Your task to perform on an android device: Open display settings Image 0: 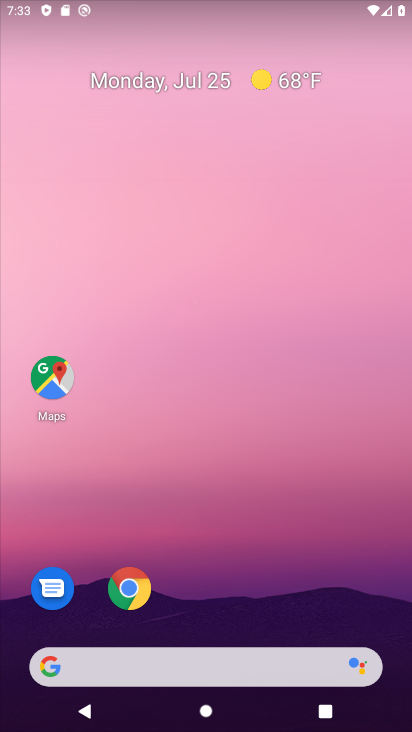
Step 0: press home button
Your task to perform on an android device: Open display settings Image 1: 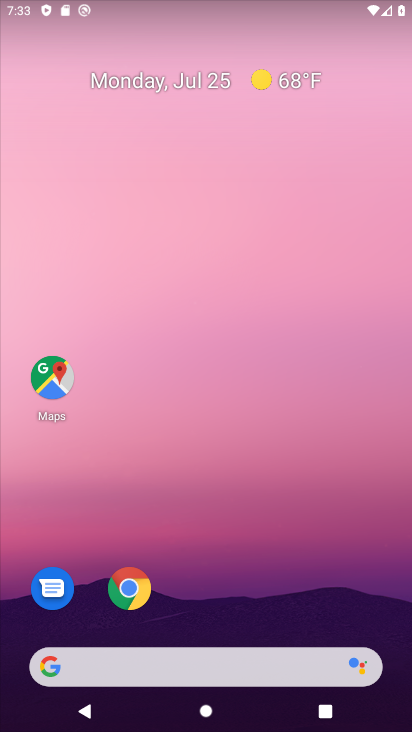
Step 1: drag from (338, 566) to (345, 73)
Your task to perform on an android device: Open display settings Image 2: 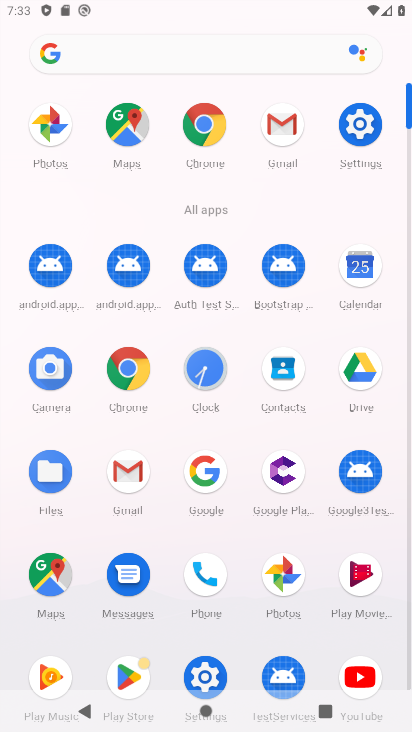
Step 2: click (360, 135)
Your task to perform on an android device: Open display settings Image 3: 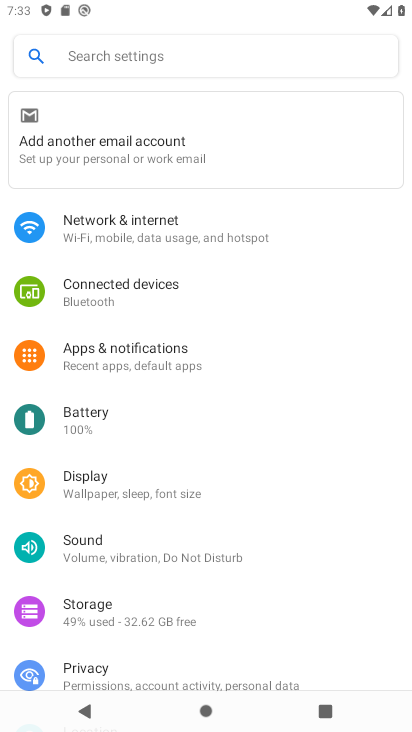
Step 3: drag from (341, 324) to (352, 252)
Your task to perform on an android device: Open display settings Image 4: 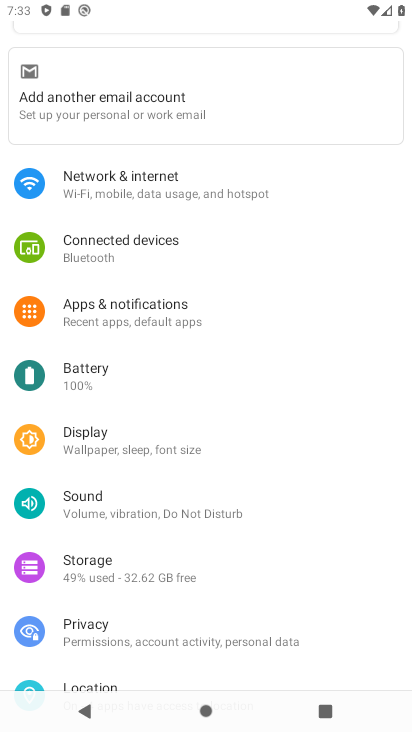
Step 4: drag from (344, 381) to (343, 298)
Your task to perform on an android device: Open display settings Image 5: 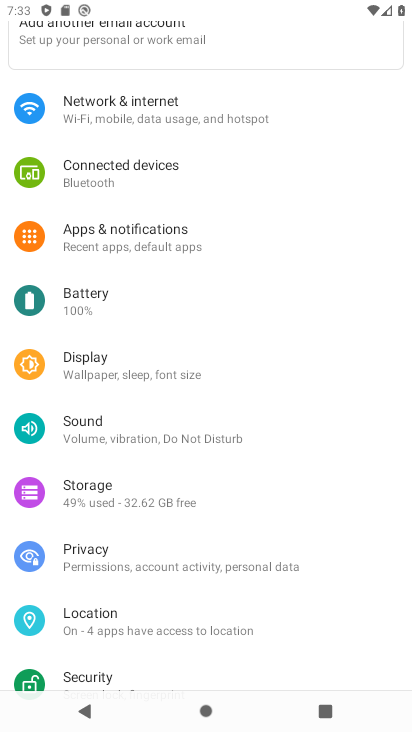
Step 5: drag from (352, 436) to (353, 341)
Your task to perform on an android device: Open display settings Image 6: 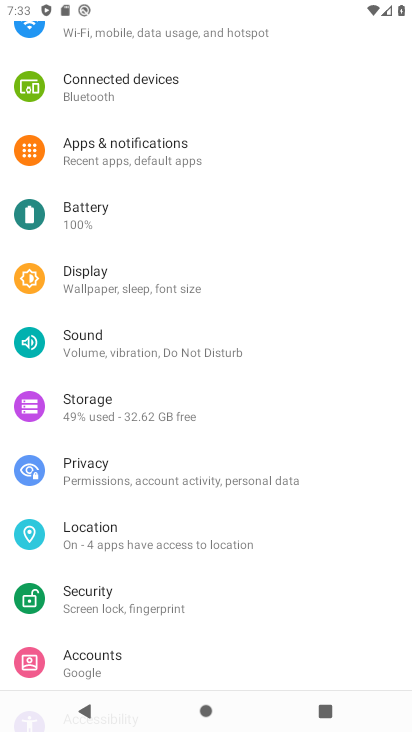
Step 6: drag from (341, 489) to (342, 365)
Your task to perform on an android device: Open display settings Image 7: 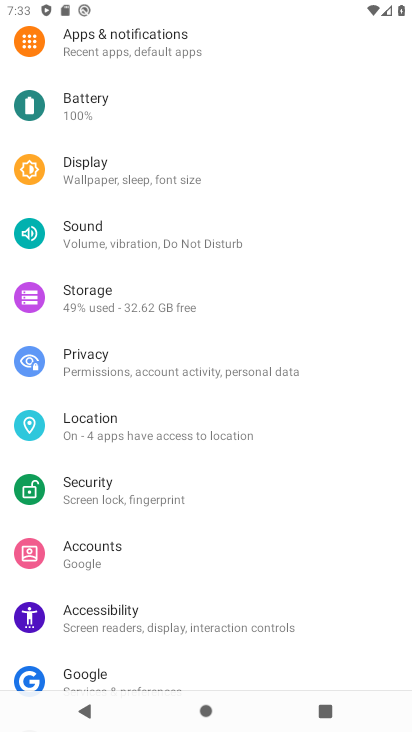
Step 7: drag from (334, 505) to (337, 397)
Your task to perform on an android device: Open display settings Image 8: 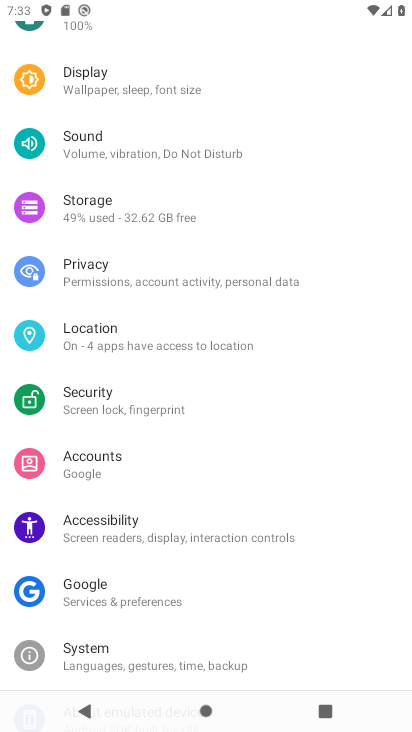
Step 8: drag from (339, 552) to (334, 396)
Your task to perform on an android device: Open display settings Image 9: 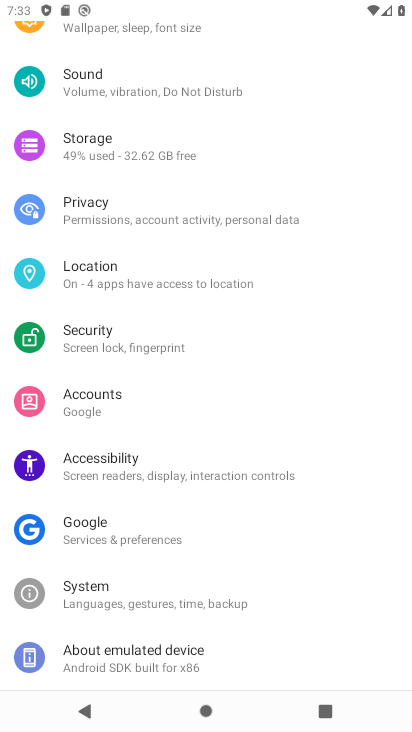
Step 9: drag from (342, 331) to (346, 402)
Your task to perform on an android device: Open display settings Image 10: 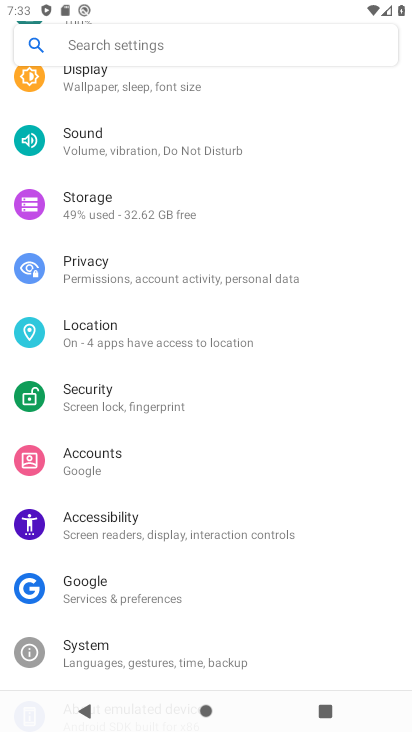
Step 10: drag from (350, 321) to (355, 401)
Your task to perform on an android device: Open display settings Image 11: 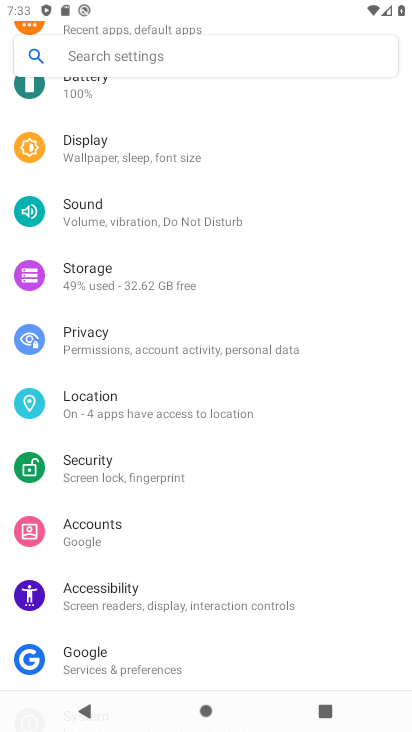
Step 11: drag from (351, 307) to (353, 403)
Your task to perform on an android device: Open display settings Image 12: 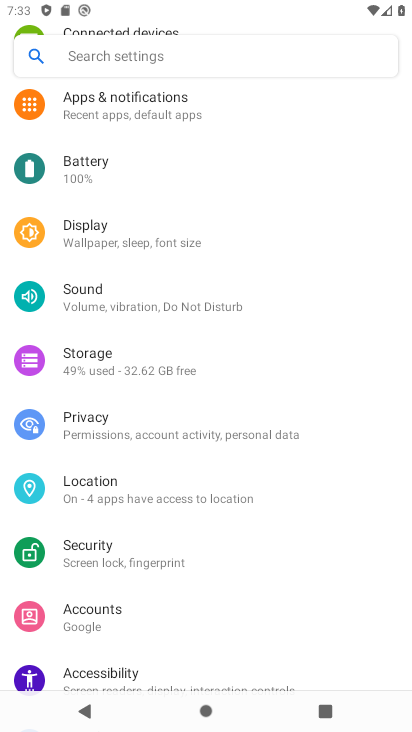
Step 12: drag from (350, 291) to (346, 406)
Your task to perform on an android device: Open display settings Image 13: 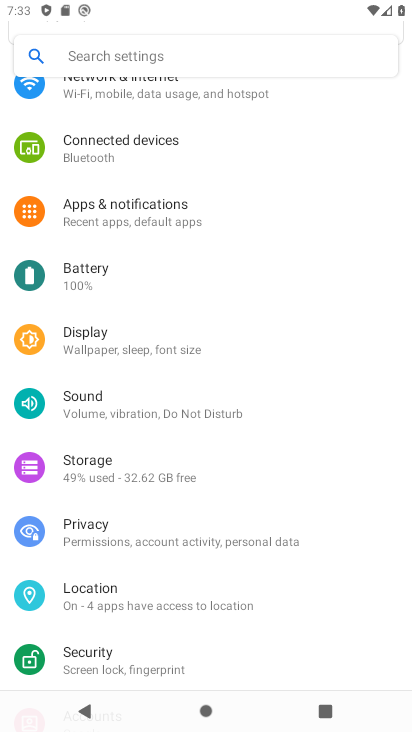
Step 13: drag from (329, 272) to (332, 375)
Your task to perform on an android device: Open display settings Image 14: 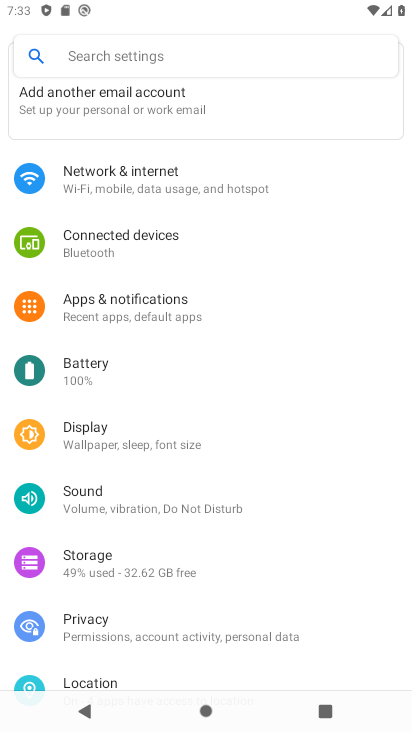
Step 14: drag from (322, 235) to (322, 363)
Your task to perform on an android device: Open display settings Image 15: 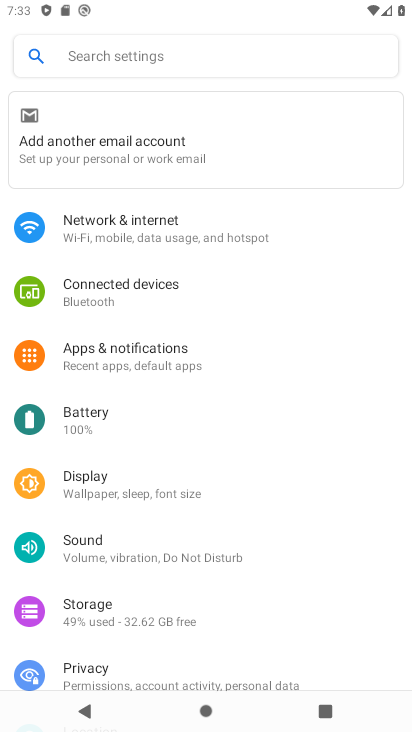
Step 15: click (253, 494)
Your task to perform on an android device: Open display settings Image 16: 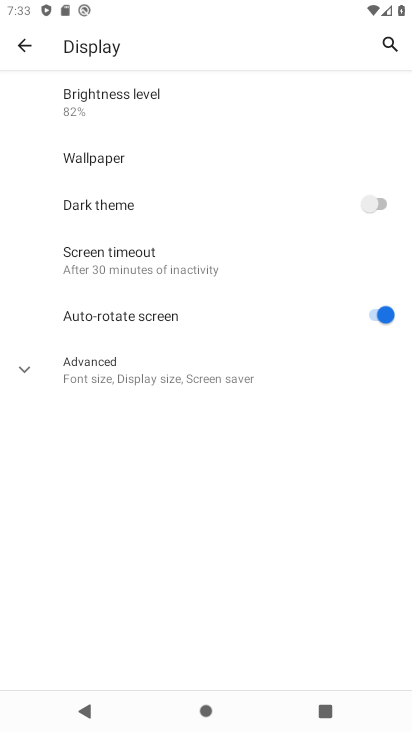
Step 16: click (211, 362)
Your task to perform on an android device: Open display settings Image 17: 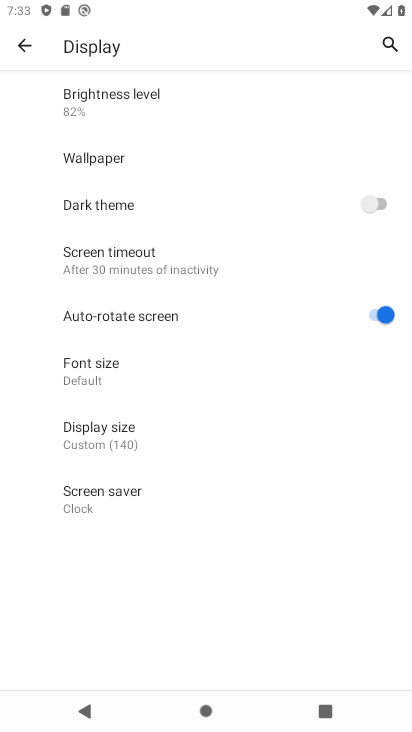
Step 17: task complete